Your task to perform on an android device: install app "Facebook Lite" Image 0: 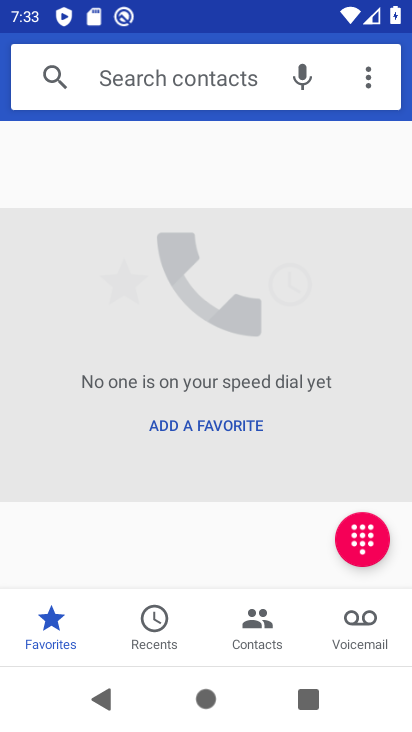
Step 0: press home button
Your task to perform on an android device: install app "Facebook Lite" Image 1: 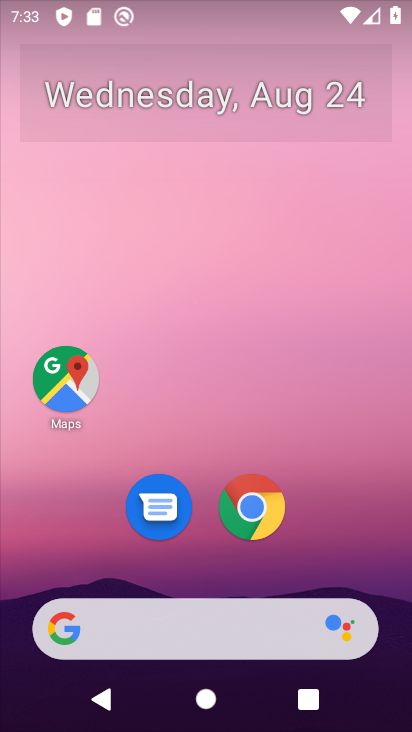
Step 1: drag from (341, 552) to (380, 92)
Your task to perform on an android device: install app "Facebook Lite" Image 2: 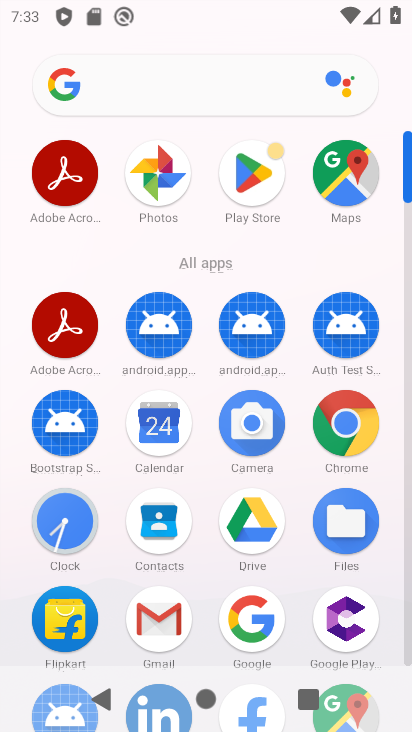
Step 2: click (262, 192)
Your task to perform on an android device: install app "Facebook Lite" Image 3: 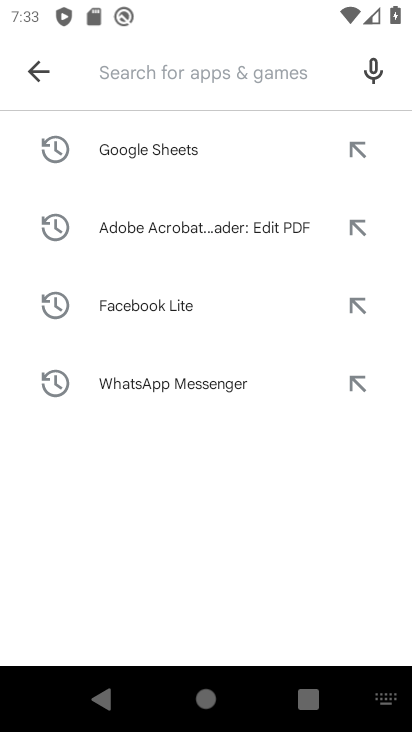
Step 3: type "Facebook Lite"
Your task to perform on an android device: install app "Facebook Lite" Image 4: 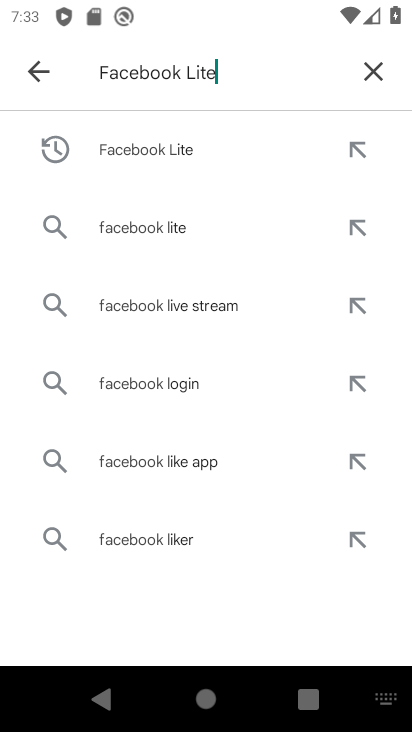
Step 4: press enter
Your task to perform on an android device: install app "Facebook Lite" Image 5: 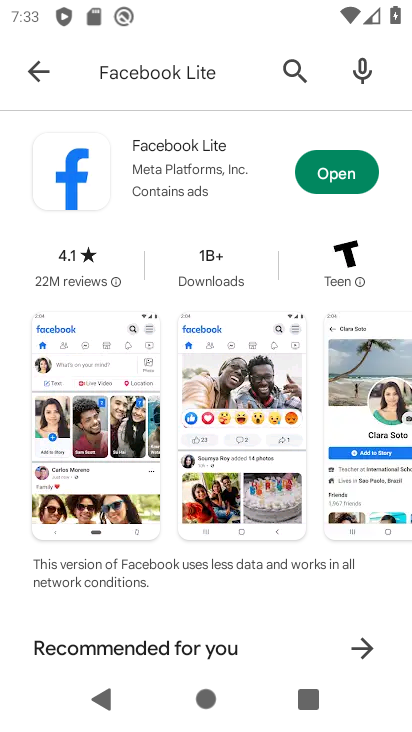
Step 5: task complete